Your task to perform on an android device: Go to settings Image 0: 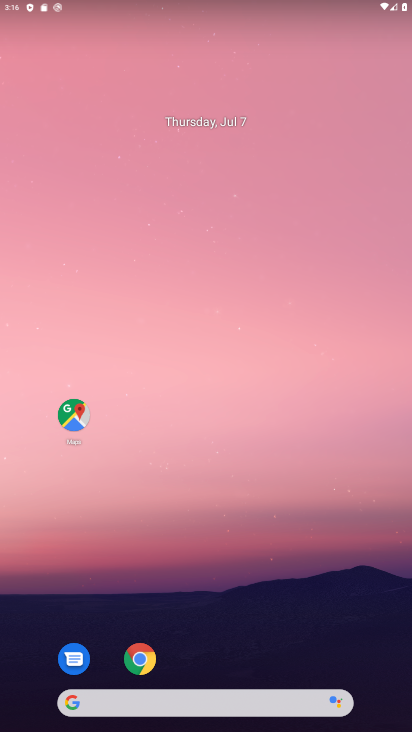
Step 0: drag from (344, 646) to (186, 162)
Your task to perform on an android device: Go to settings Image 1: 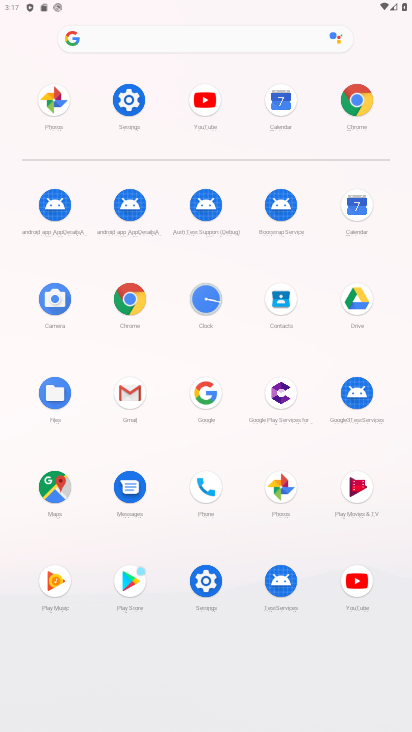
Step 1: click (132, 93)
Your task to perform on an android device: Go to settings Image 2: 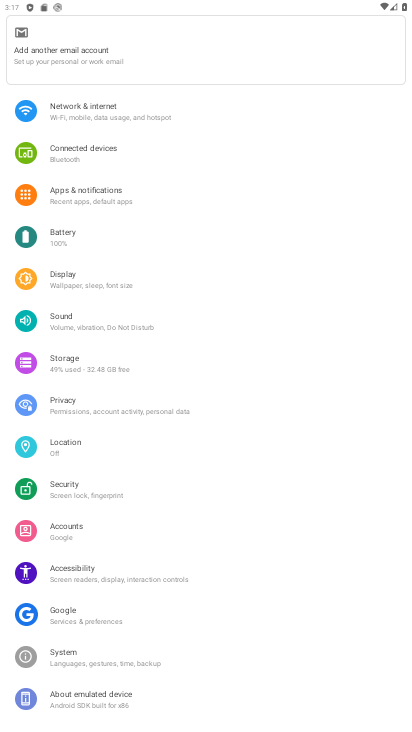
Step 2: task complete